Your task to perform on an android device: turn on wifi Image 0: 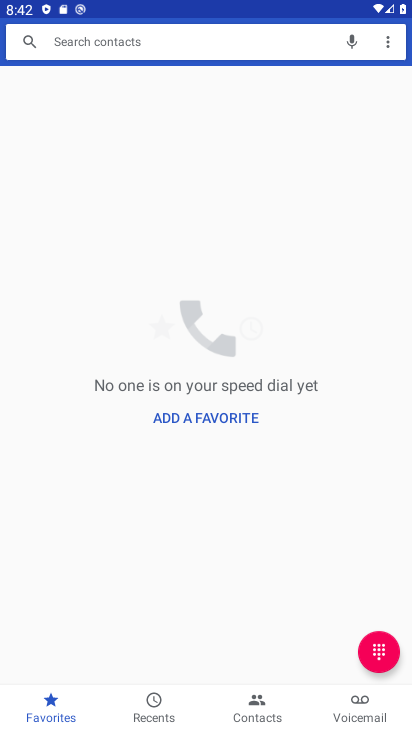
Step 0: press back button
Your task to perform on an android device: turn on wifi Image 1: 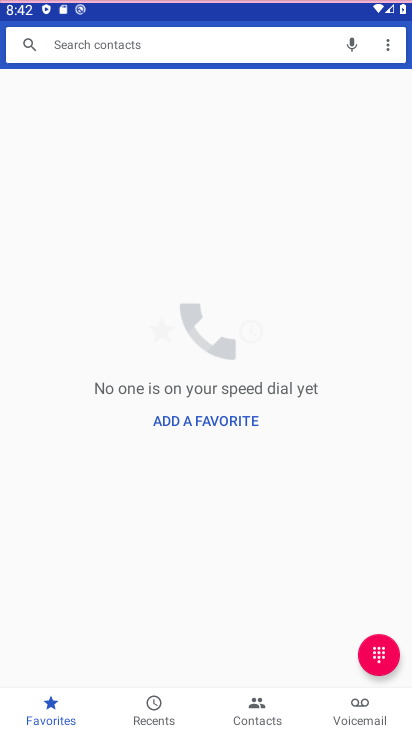
Step 1: press back button
Your task to perform on an android device: turn on wifi Image 2: 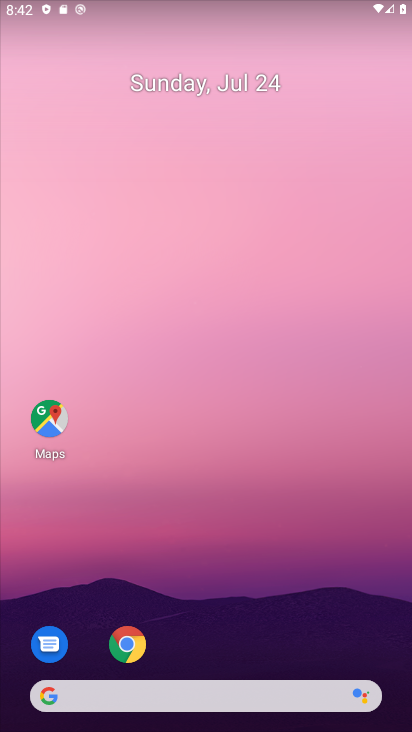
Step 2: drag from (265, 631) to (165, 237)
Your task to perform on an android device: turn on wifi Image 3: 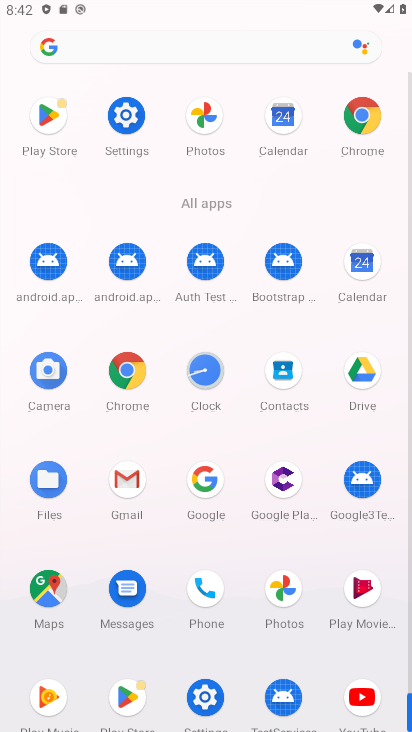
Step 3: click (130, 117)
Your task to perform on an android device: turn on wifi Image 4: 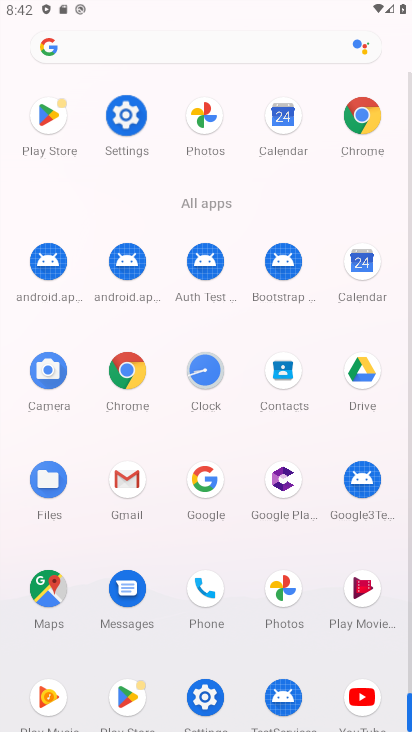
Step 4: click (130, 120)
Your task to perform on an android device: turn on wifi Image 5: 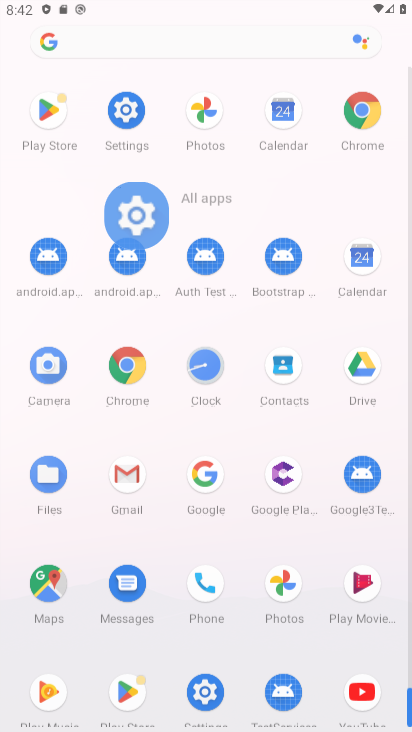
Step 5: click (131, 122)
Your task to perform on an android device: turn on wifi Image 6: 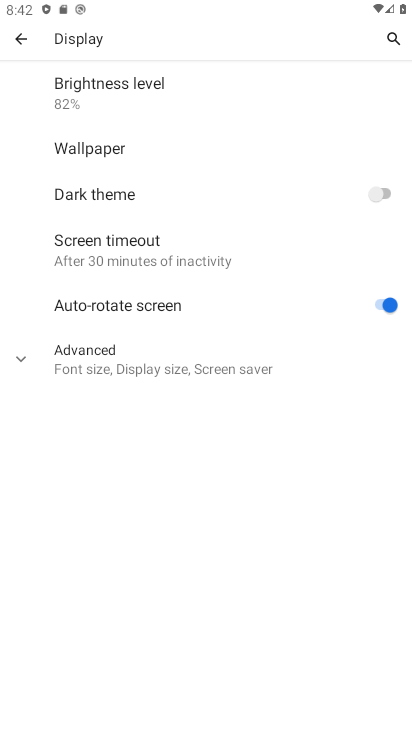
Step 6: drag from (130, 106) to (130, 375)
Your task to perform on an android device: turn on wifi Image 7: 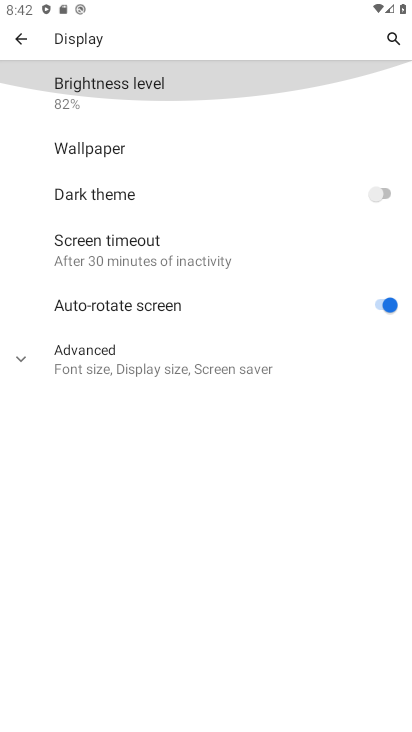
Step 7: drag from (157, 151) to (199, 546)
Your task to perform on an android device: turn on wifi Image 8: 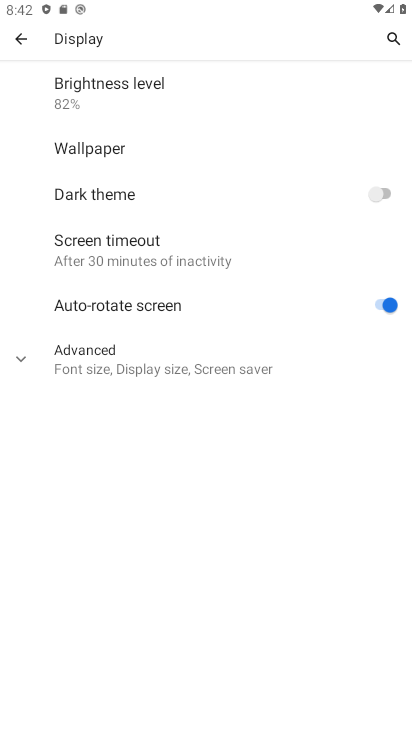
Step 8: click (20, 39)
Your task to perform on an android device: turn on wifi Image 9: 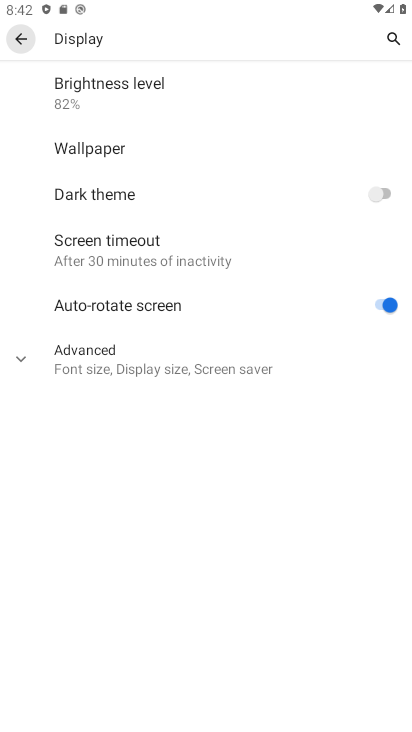
Step 9: click (19, 36)
Your task to perform on an android device: turn on wifi Image 10: 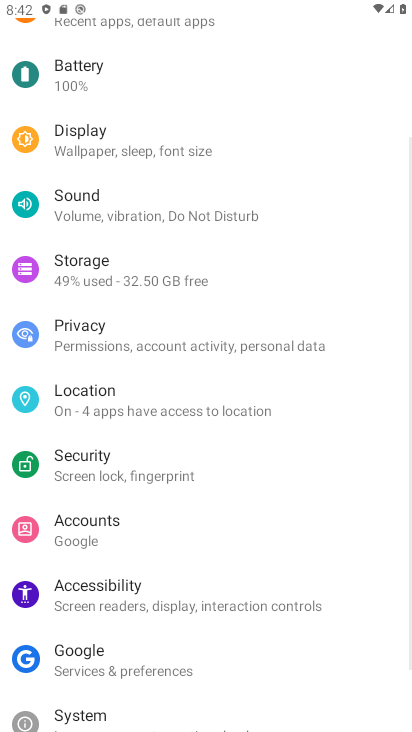
Step 10: drag from (161, 63) to (111, 502)
Your task to perform on an android device: turn on wifi Image 11: 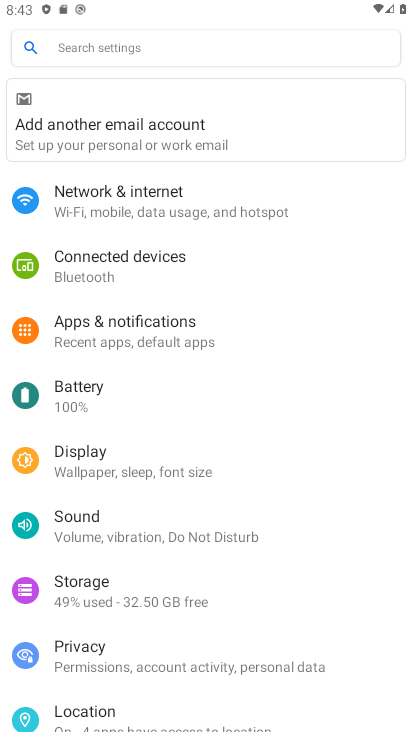
Step 11: click (110, 201)
Your task to perform on an android device: turn on wifi Image 12: 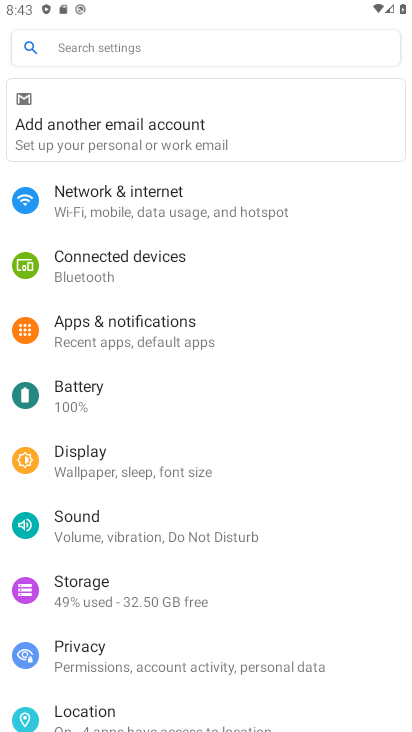
Step 12: click (113, 201)
Your task to perform on an android device: turn on wifi Image 13: 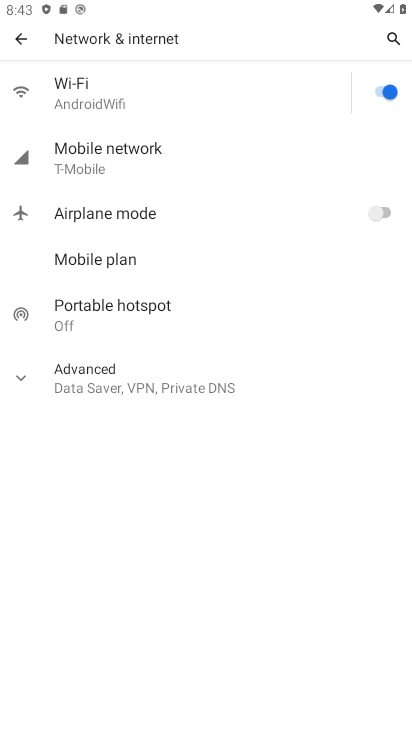
Step 13: task complete